Your task to perform on an android device: toggle airplane mode Image 0: 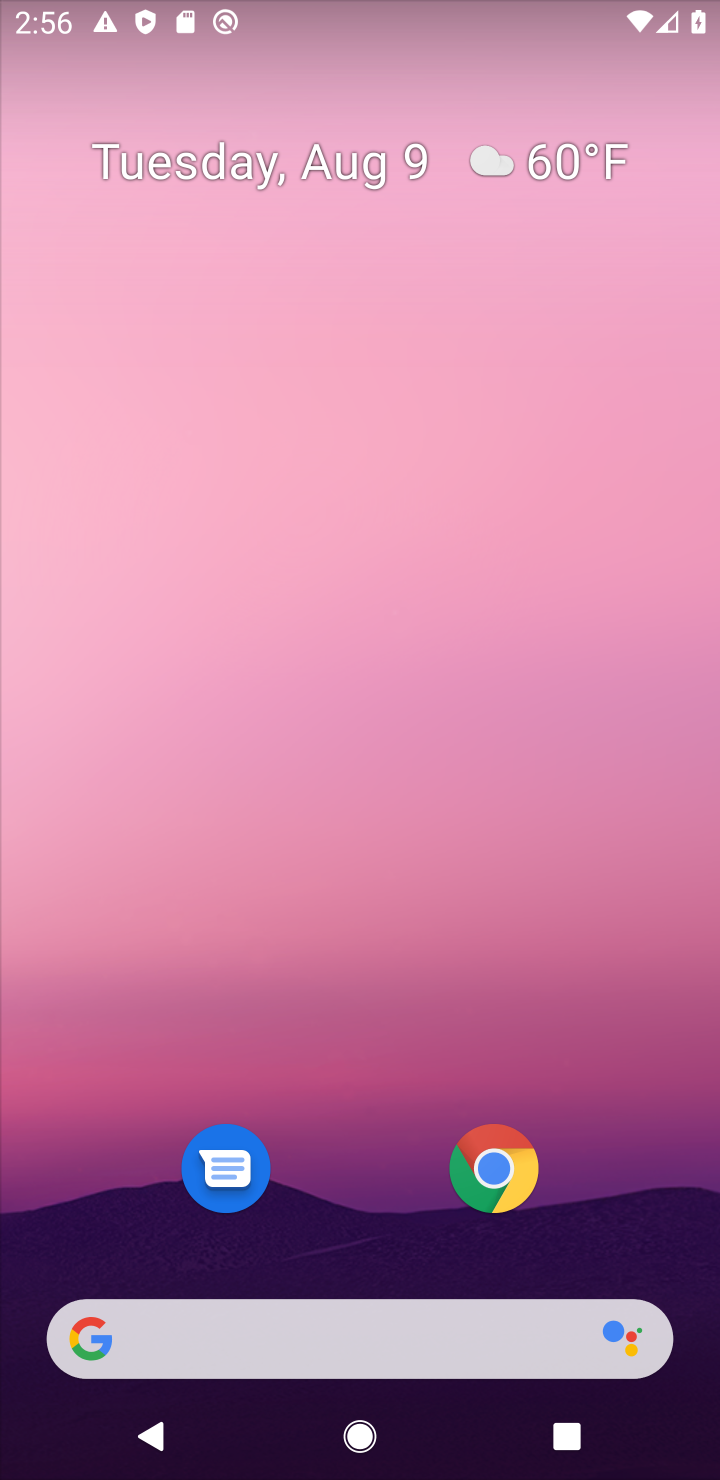
Step 0: drag from (360, 1197) to (309, 314)
Your task to perform on an android device: toggle airplane mode Image 1: 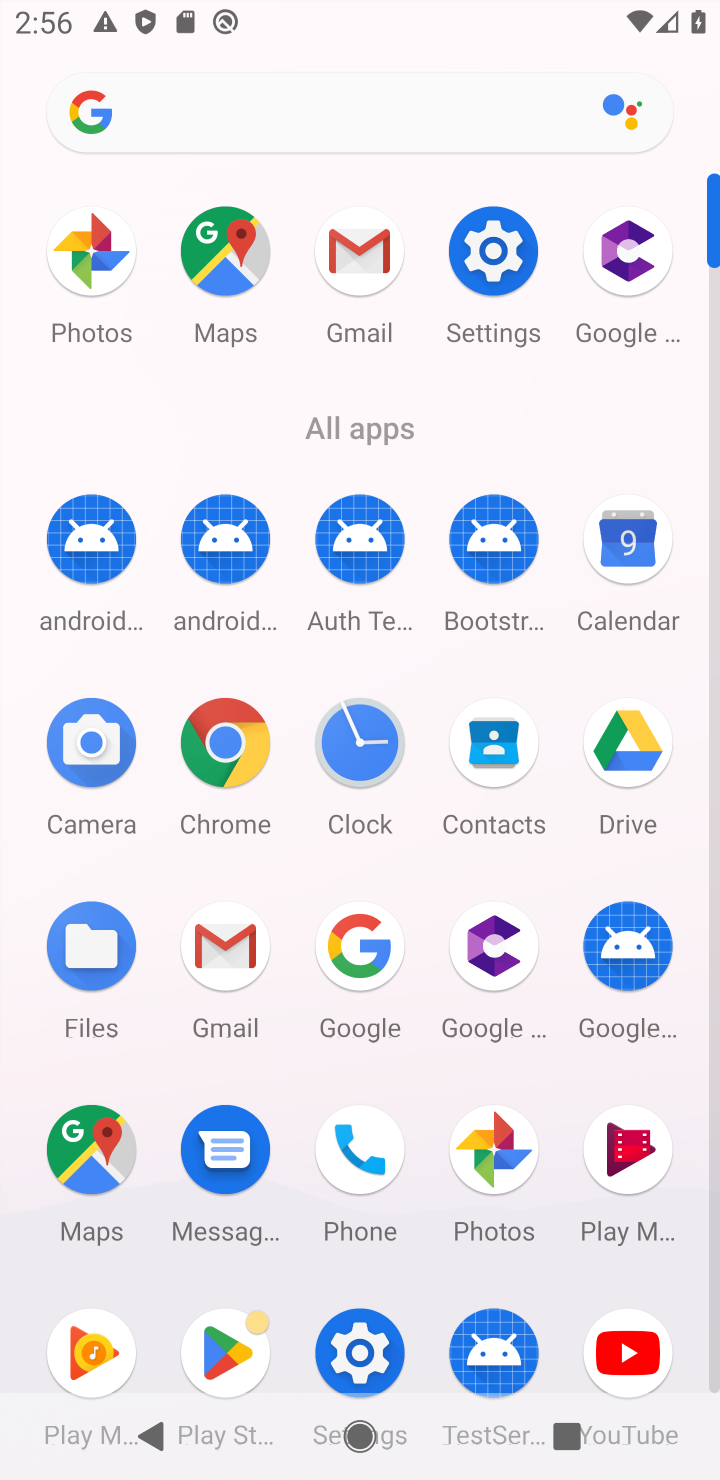
Step 1: click (529, 235)
Your task to perform on an android device: toggle airplane mode Image 2: 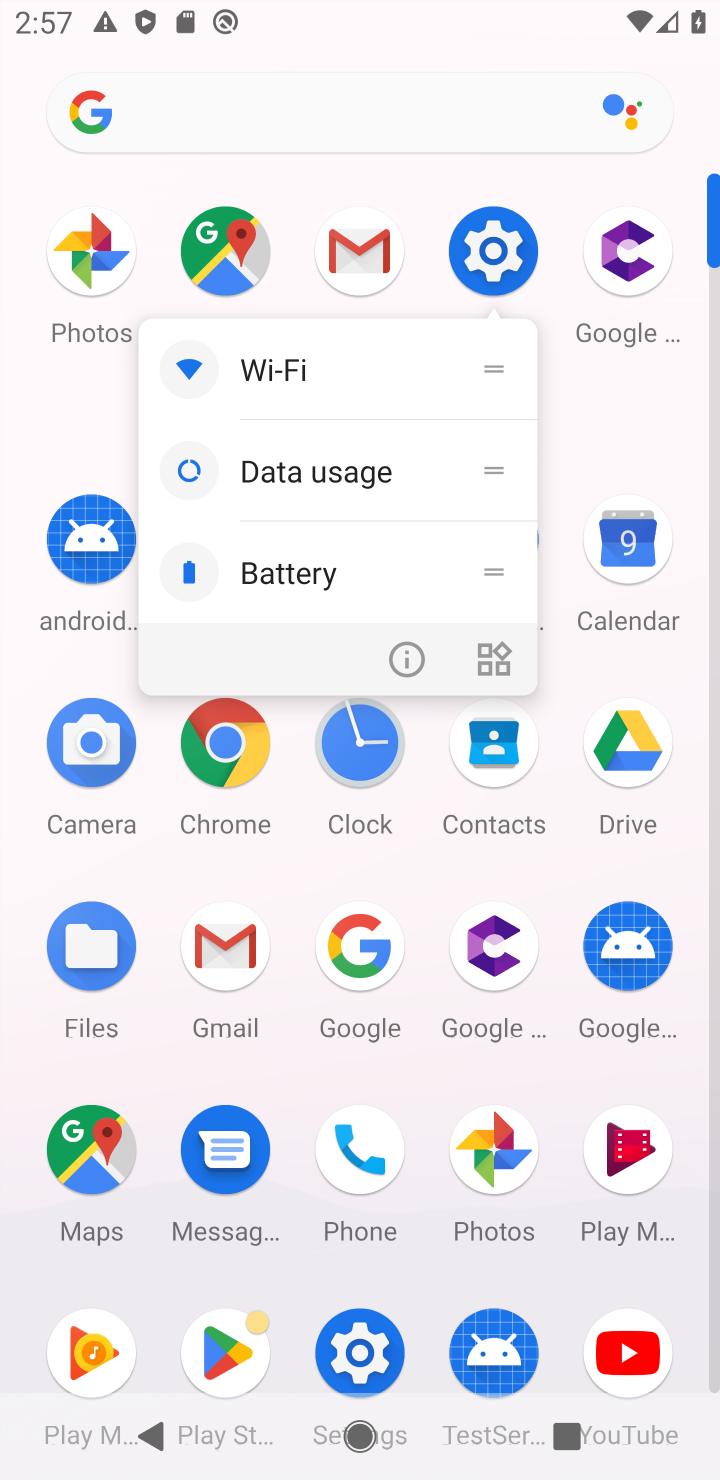
Step 2: click (474, 237)
Your task to perform on an android device: toggle airplane mode Image 3: 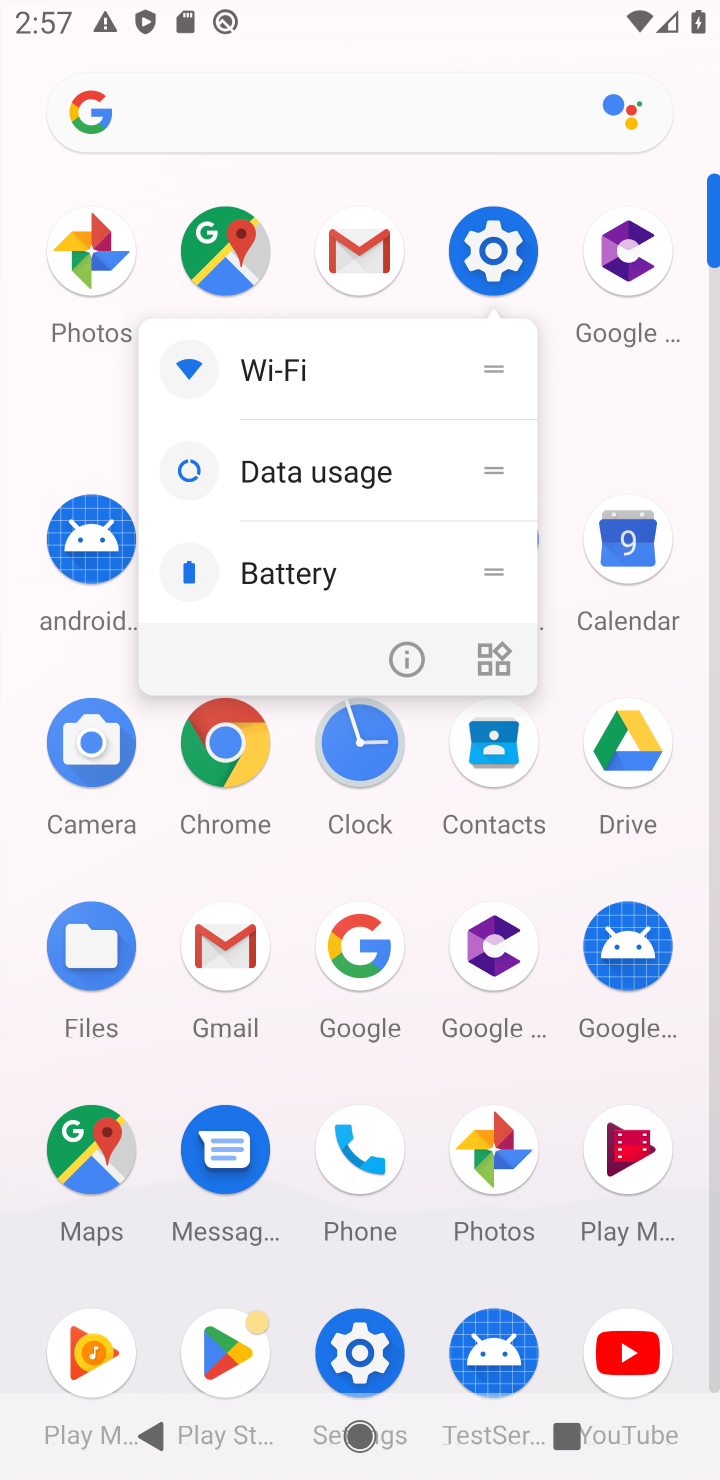
Step 3: click (490, 256)
Your task to perform on an android device: toggle airplane mode Image 4: 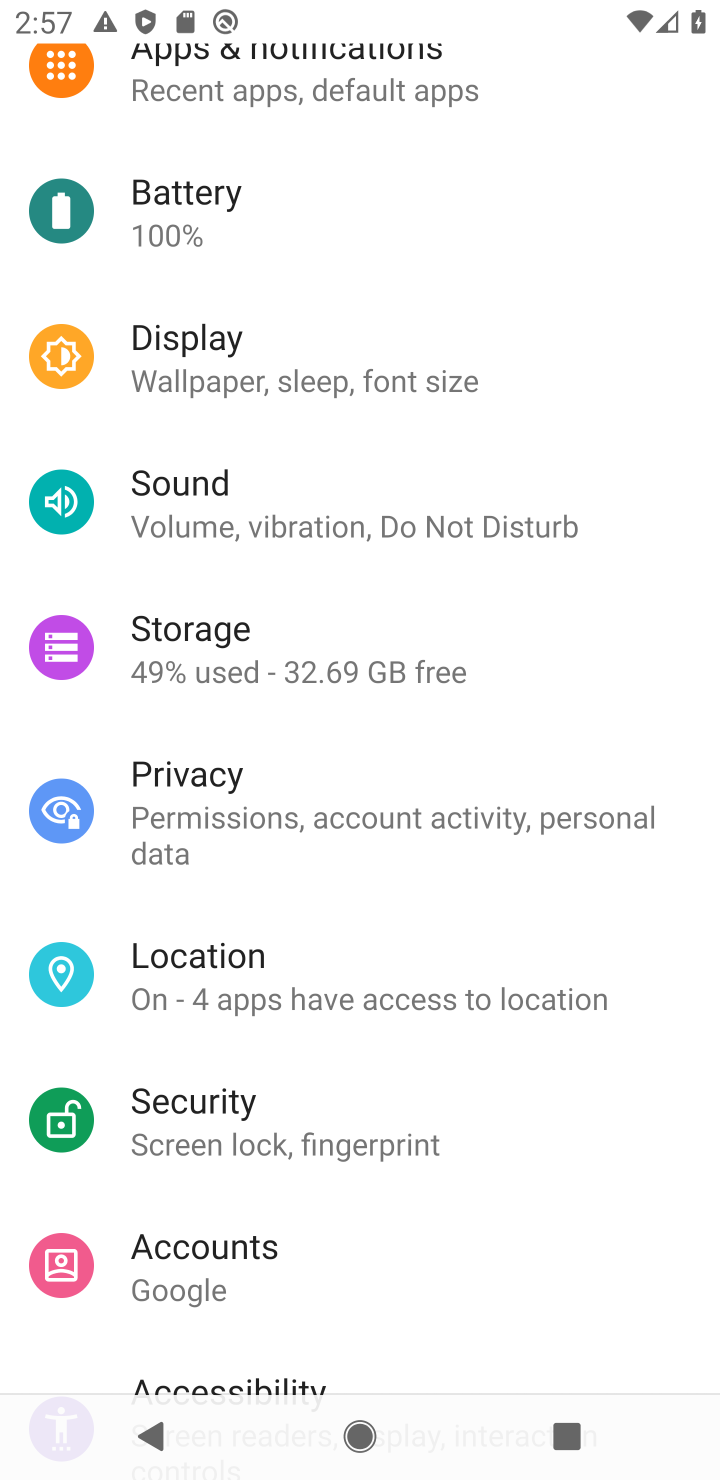
Step 4: drag from (592, 350) to (700, 744)
Your task to perform on an android device: toggle airplane mode Image 5: 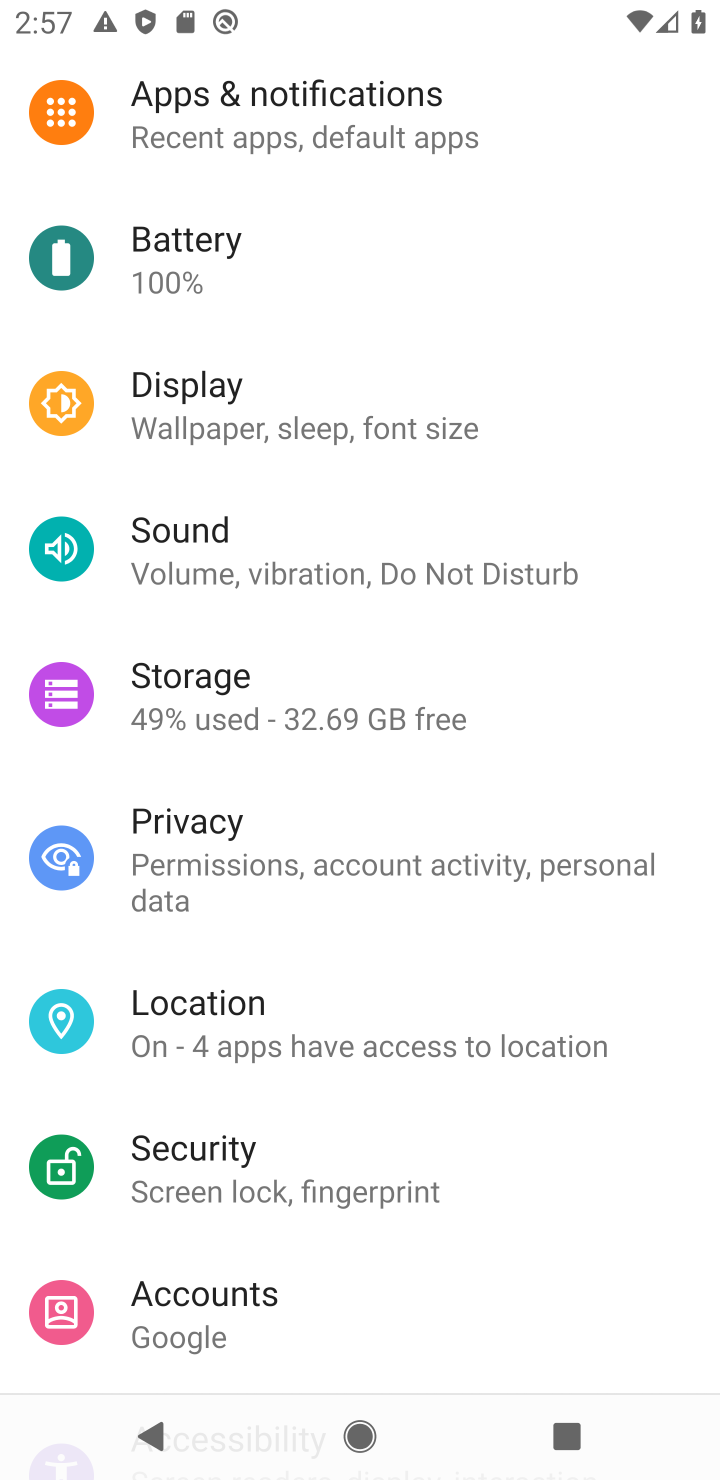
Step 5: drag from (546, 206) to (716, 912)
Your task to perform on an android device: toggle airplane mode Image 6: 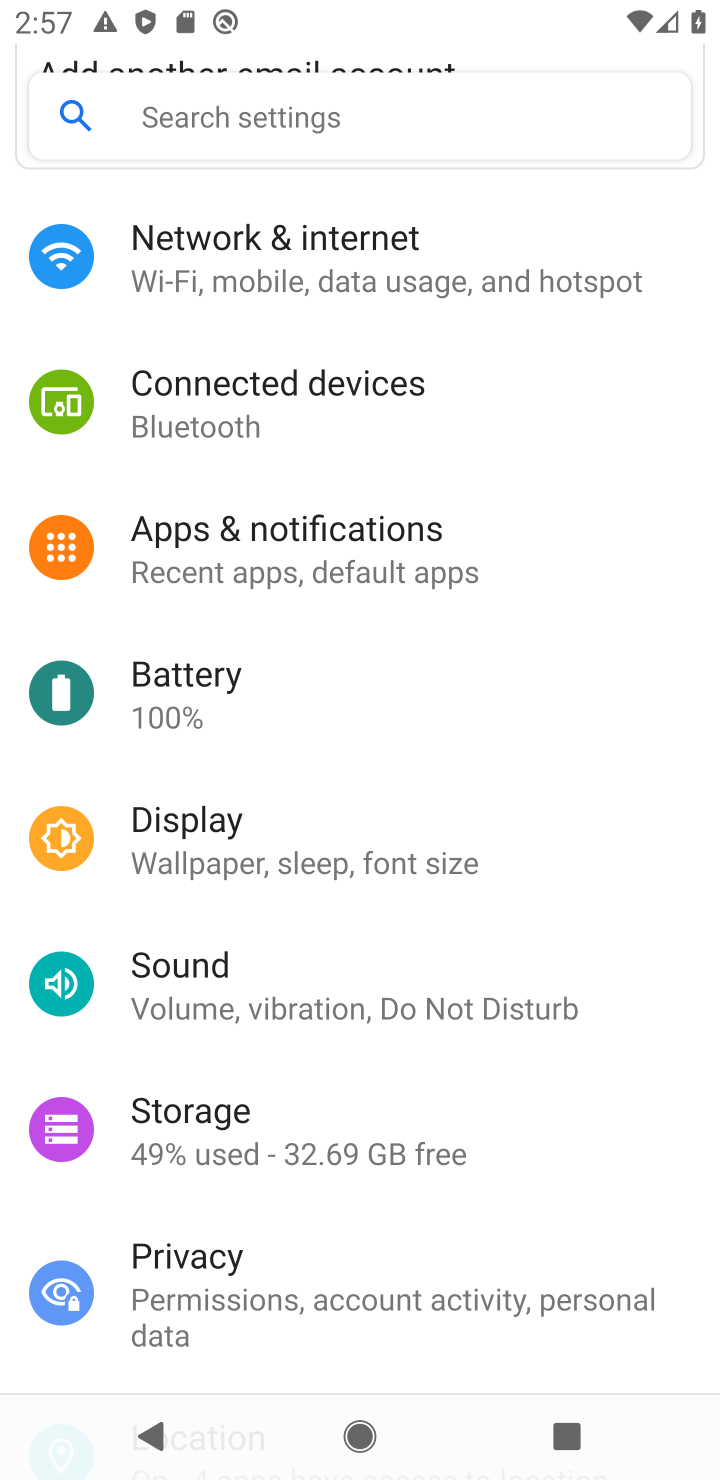
Step 6: click (373, 276)
Your task to perform on an android device: toggle airplane mode Image 7: 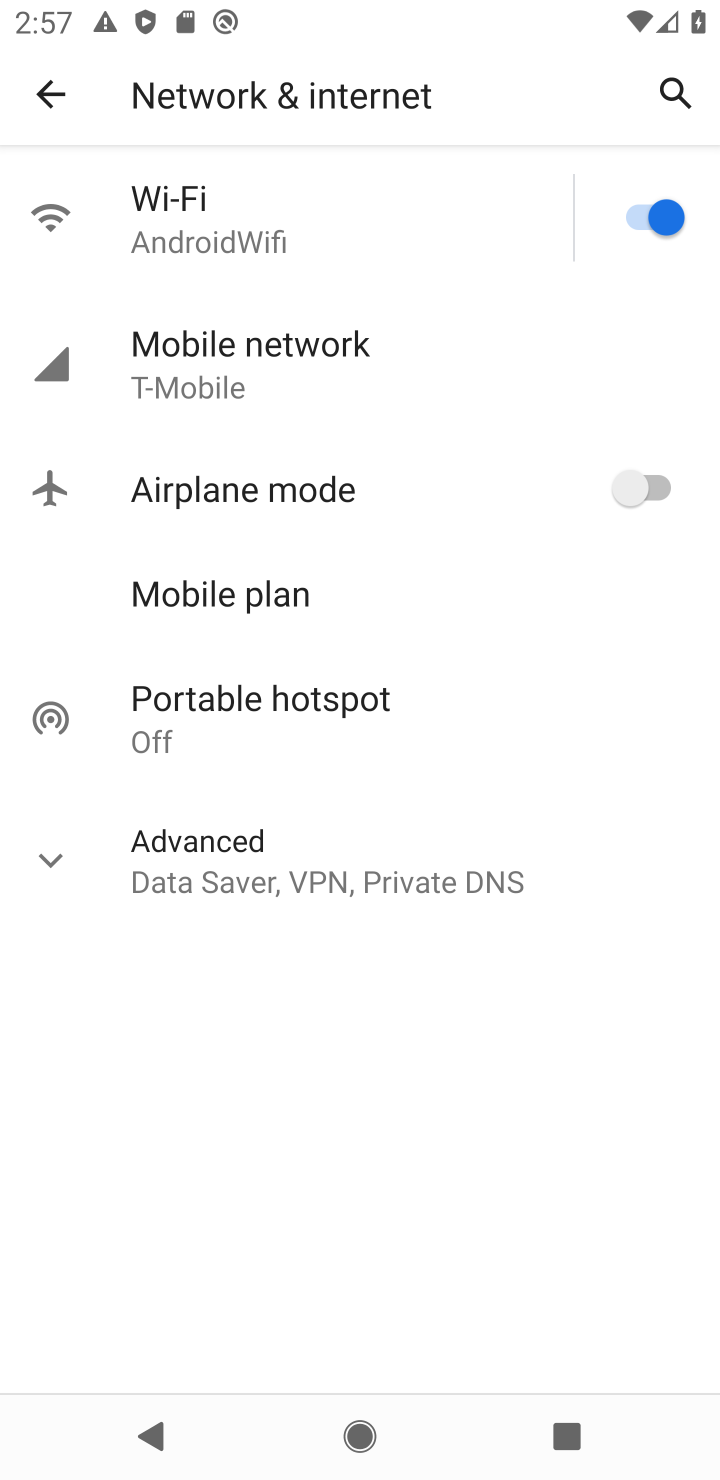
Step 7: click (655, 467)
Your task to perform on an android device: toggle airplane mode Image 8: 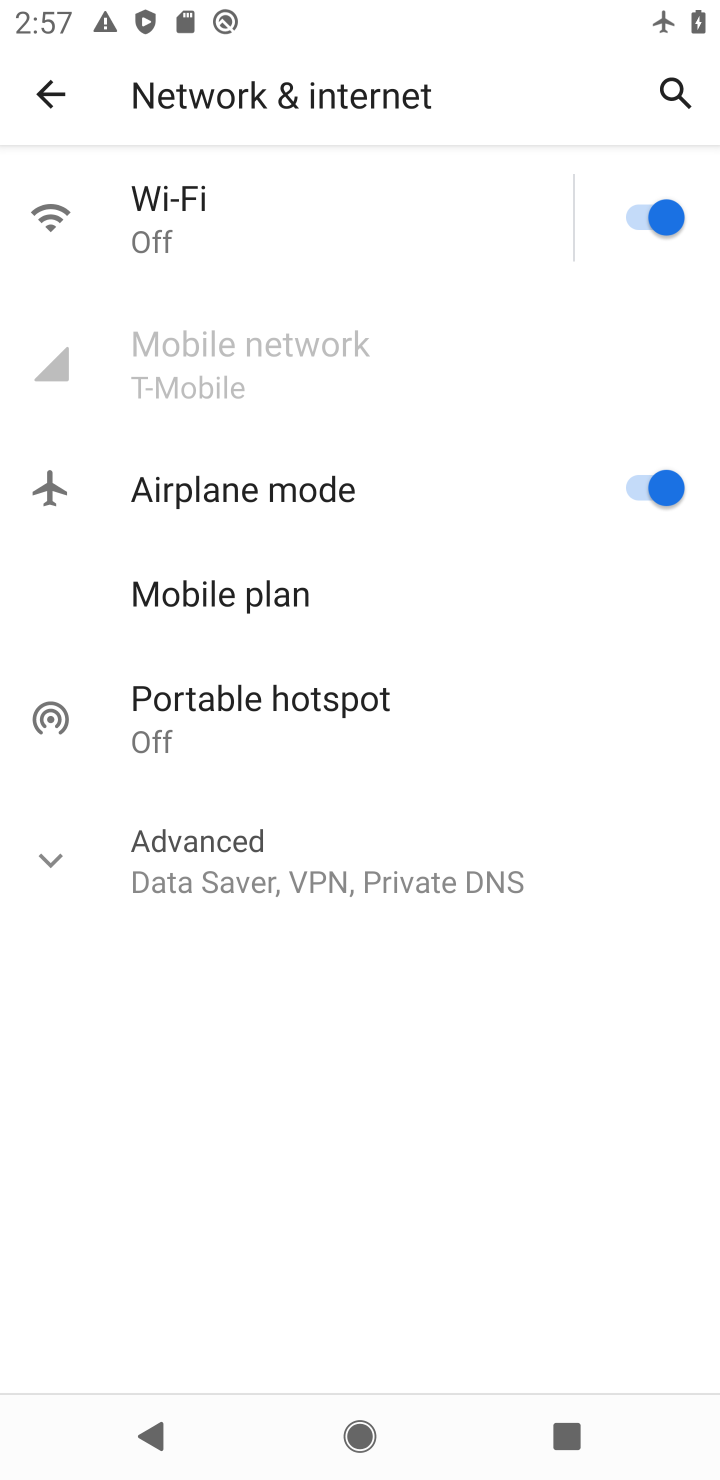
Step 8: task complete